Your task to perform on an android device: turn on notifications settings in the gmail app Image 0: 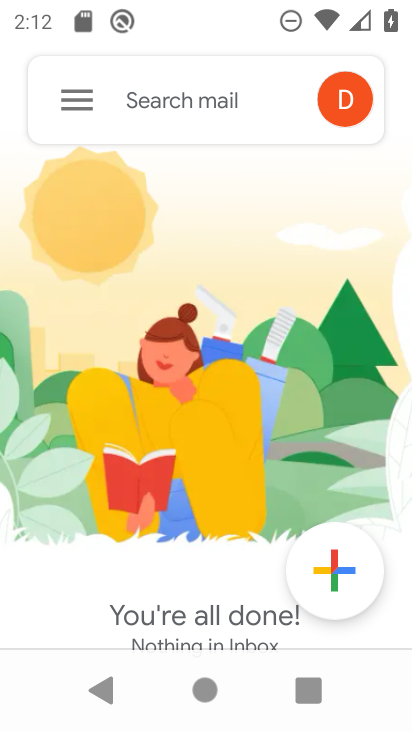
Step 0: press home button
Your task to perform on an android device: turn on notifications settings in the gmail app Image 1: 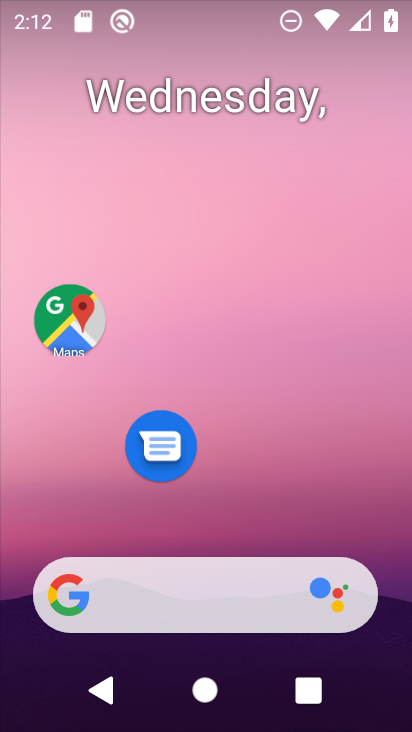
Step 1: drag from (322, 463) to (334, 57)
Your task to perform on an android device: turn on notifications settings in the gmail app Image 2: 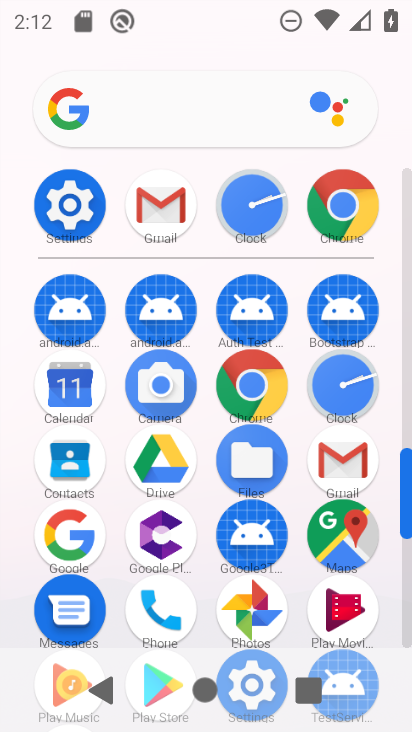
Step 2: click (156, 240)
Your task to perform on an android device: turn on notifications settings in the gmail app Image 3: 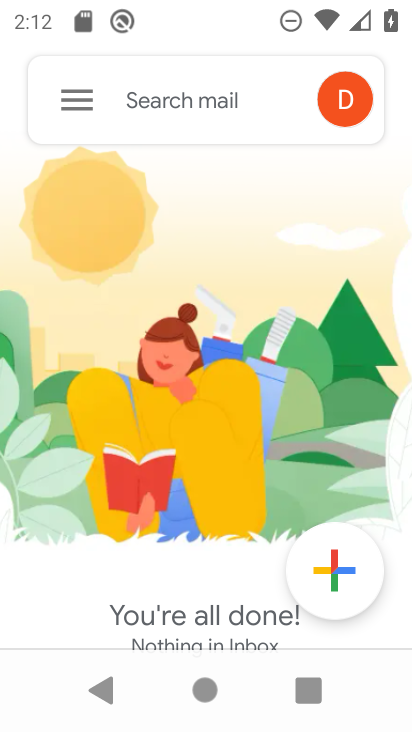
Step 3: click (88, 108)
Your task to perform on an android device: turn on notifications settings in the gmail app Image 4: 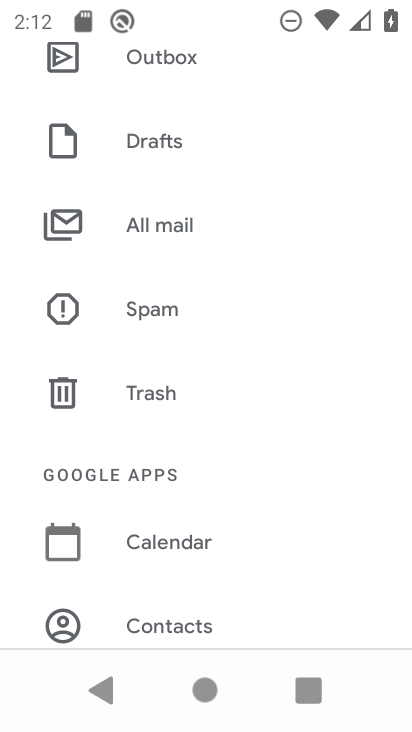
Step 4: drag from (192, 577) to (171, 255)
Your task to perform on an android device: turn on notifications settings in the gmail app Image 5: 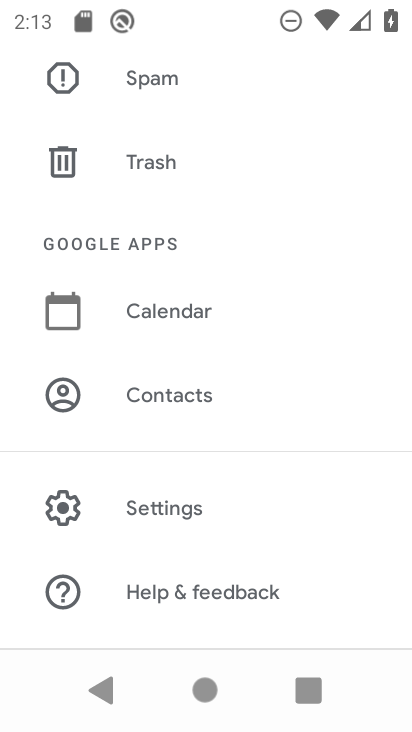
Step 5: click (221, 506)
Your task to perform on an android device: turn on notifications settings in the gmail app Image 6: 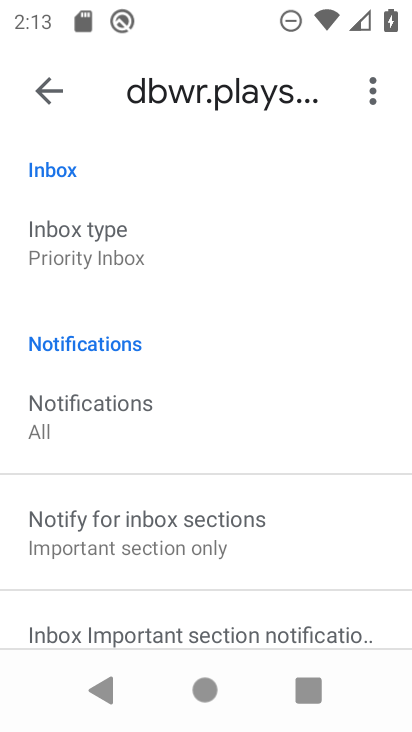
Step 6: drag from (221, 506) to (213, 379)
Your task to perform on an android device: turn on notifications settings in the gmail app Image 7: 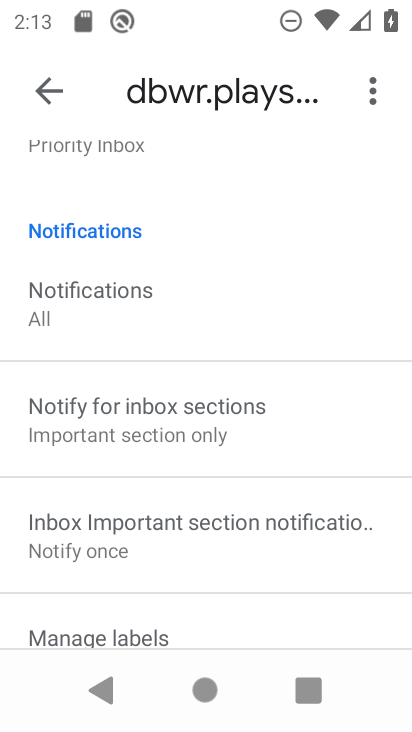
Step 7: drag from (206, 458) to (228, 267)
Your task to perform on an android device: turn on notifications settings in the gmail app Image 8: 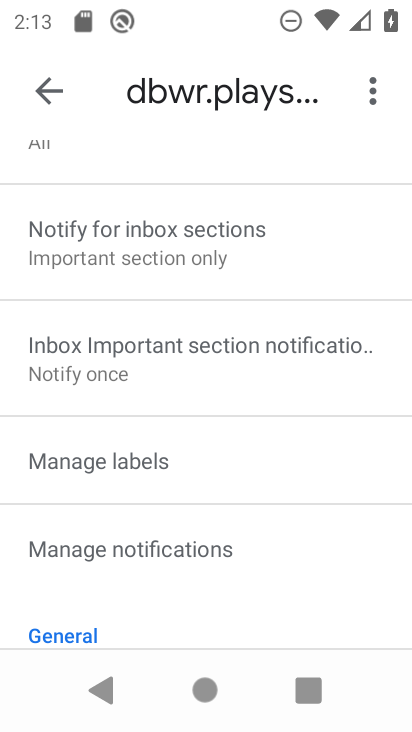
Step 8: click (161, 542)
Your task to perform on an android device: turn on notifications settings in the gmail app Image 9: 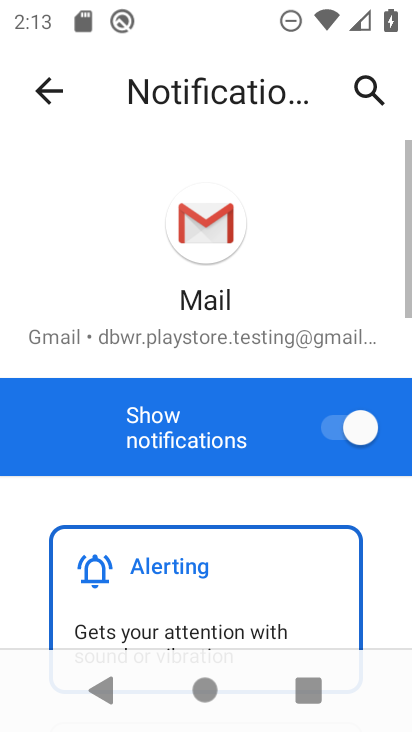
Step 9: click (291, 379)
Your task to perform on an android device: turn on notifications settings in the gmail app Image 10: 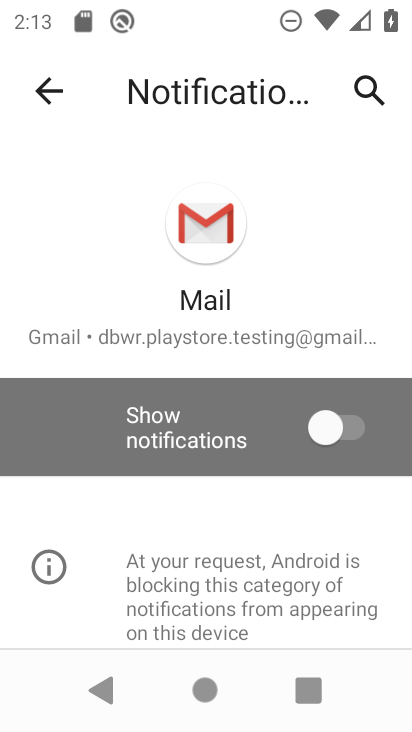
Step 10: task complete